Your task to perform on an android device: Clear all items from cart on bestbuy. Add "usb-a" to the cart on bestbuy, then select checkout. Image 0: 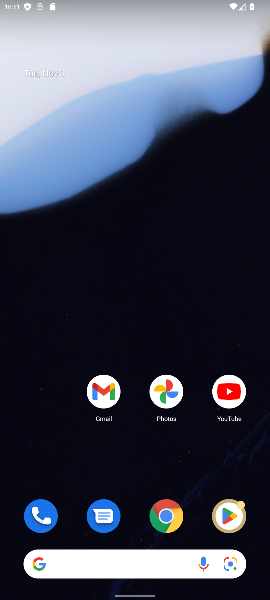
Step 0: click (164, 517)
Your task to perform on an android device: Clear all items from cart on bestbuy. Add "usb-a" to the cart on bestbuy, then select checkout. Image 1: 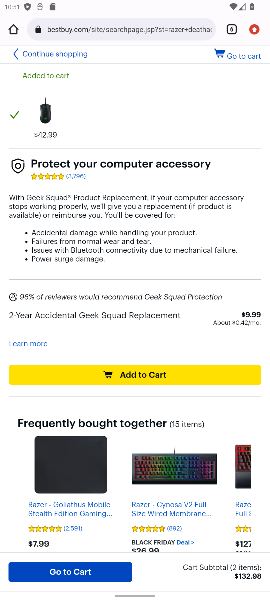
Step 1: click (241, 56)
Your task to perform on an android device: Clear all items from cart on bestbuy. Add "usb-a" to the cart on bestbuy, then select checkout. Image 2: 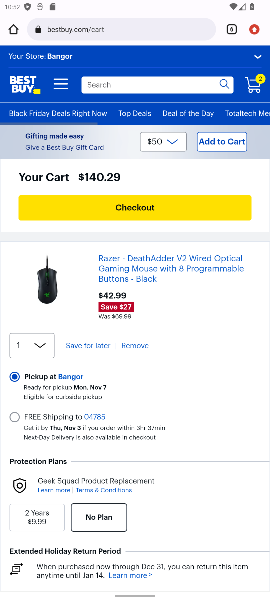
Step 2: click (129, 345)
Your task to perform on an android device: Clear all items from cart on bestbuy. Add "usb-a" to the cart on bestbuy, then select checkout. Image 3: 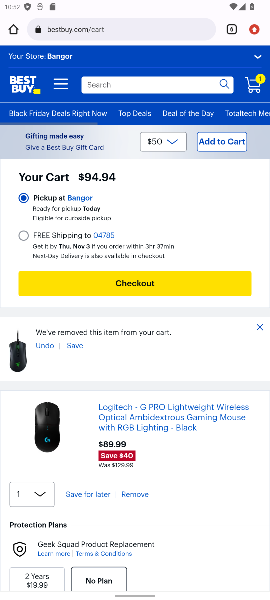
Step 3: click (129, 492)
Your task to perform on an android device: Clear all items from cart on bestbuy. Add "usb-a" to the cart on bestbuy, then select checkout. Image 4: 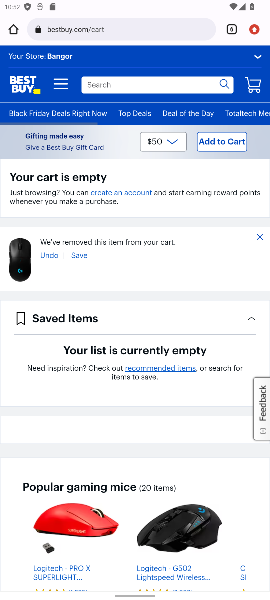
Step 4: click (105, 87)
Your task to perform on an android device: Clear all items from cart on bestbuy. Add "usb-a" to the cart on bestbuy, then select checkout. Image 5: 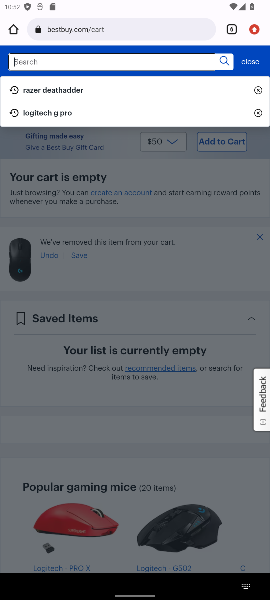
Step 5: type "usb-a"
Your task to perform on an android device: Clear all items from cart on bestbuy. Add "usb-a" to the cart on bestbuy, then select checkout. Image 6: 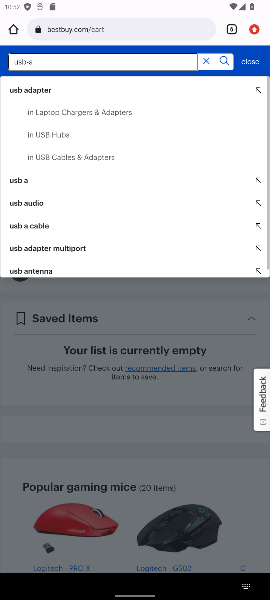
Step 6: click (32, 89)
Your task to perform on an android device: Clear all items from cart on bestbuy. Add "usb-a" to the cart on bestbuy, then select checkout. Image 7: 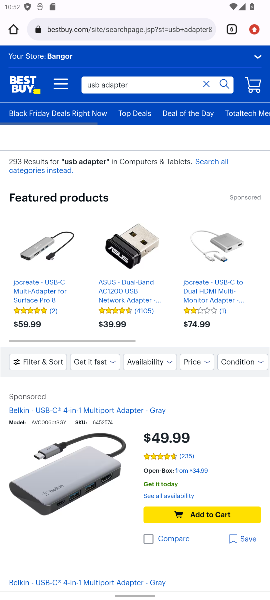
Step 7: click (195, 512)
Your task to perform on an android device: Clear all items from cart on bestbuy. Add "usb-a" to the cart on bestbuy, then select checkout. Image 8: 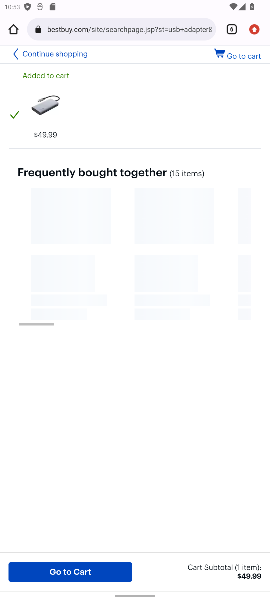
Step 8: click (101, 576)
Your task to perform on an android device: Clear all items from cart on bestbuy. Add "usb-a" to the cart on bestbuy, then select checkout. Image 9: 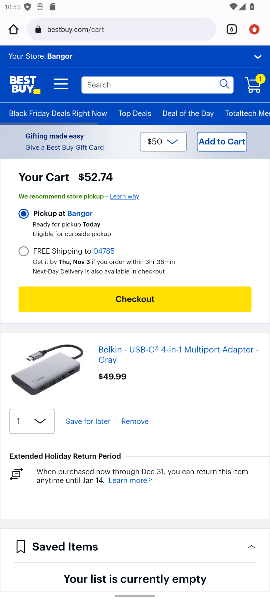
Step 9: click (164, 298)
Your task to perform on an android device: Clear all items from cart on bestbuy. Add "usb-a" to the cart on bestbuy, then select checkout. Image 10: 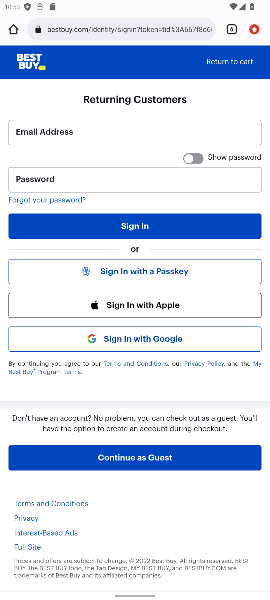
Step 10: task complete